Your task to perform on an android device: Search for flights from Buenos aires to Seoul Image 0: 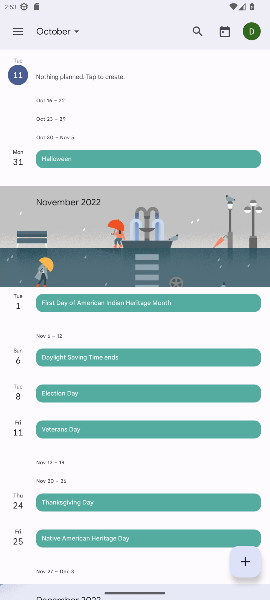
Step 0: press home button
Your task to perform on an android device: Search for flights from Buenos aires to Seoul Image 1: 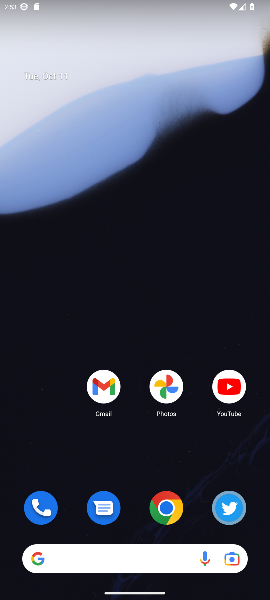
Step 1: click (165, 508)
Your task to perform on an android device: Search for flights from Buenos aires to Seoul Image 2: 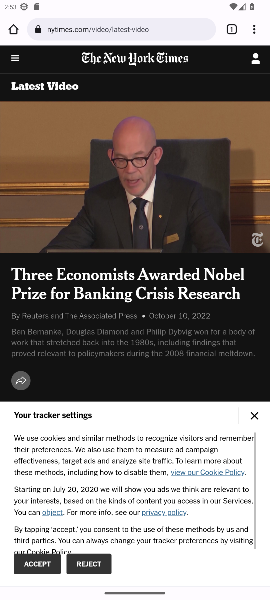
Step 2: click (255, 415)
Your task to perform on an android device: Search for flights from Buenos aires to Seoul Image 3: 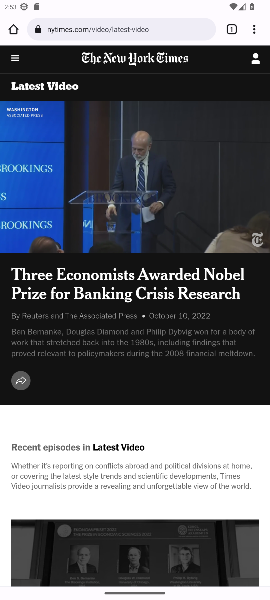
Step 3: press home button
Your task to perform on an android device: Search for flights from Buenos aires to Seoul Image 4: 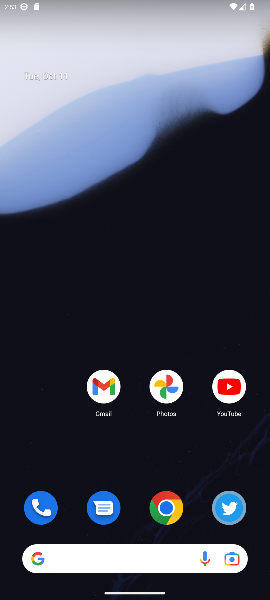
Step 4: click (168, 507)
Your task to perform on an android device: Search for flights from Buenos aires to Seoul Image 5: 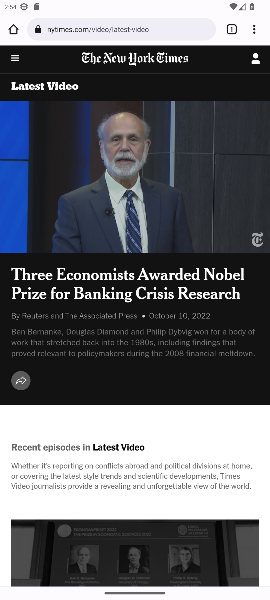
Step 5: click (112, 28)
Your task to perform on an android device: Search for flights from Buenos aires to Seoul Image 6: 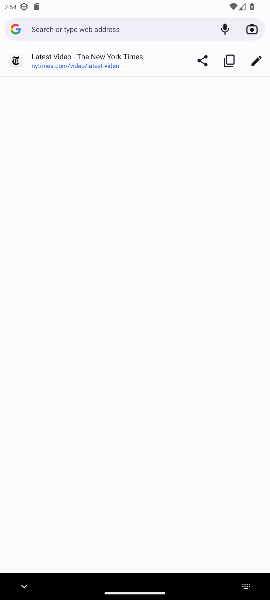
Step 6: type "flights from Buenos aires to Seoul"
Your task to perform on an android device: Search for flights from Buenos aires to Seoul Image 7: 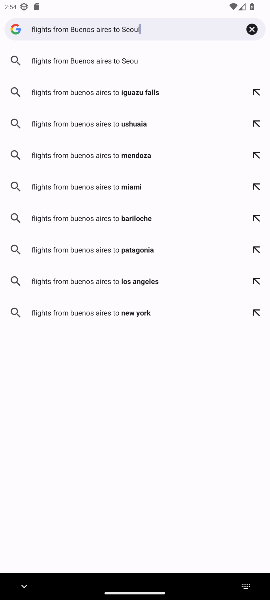
Step 7: type ""
Your task to perform on an android device: Search for flights from Buenos aires to Seoul Image 8: 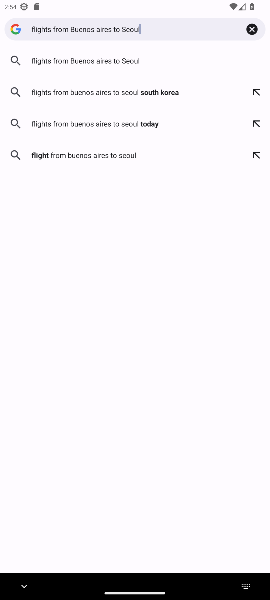
Step 8: press enter
Your task to perform on an android device: Search for flights from Buenos aires to Seoul Image 9: 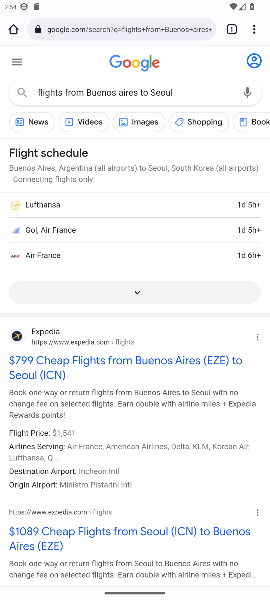
Step 9: drag from (205, 122) to (2, 118)
Your task to perform on an android device: Search for flights from Buenos aires to Seoul Image 10: 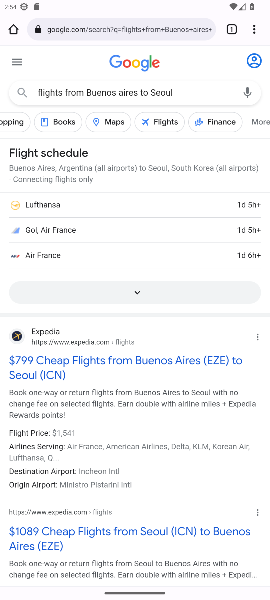
Step 10: click (163, 126)
Your task to perform on an android device: Search for flights from Buenos aires to Seoul Image 11: 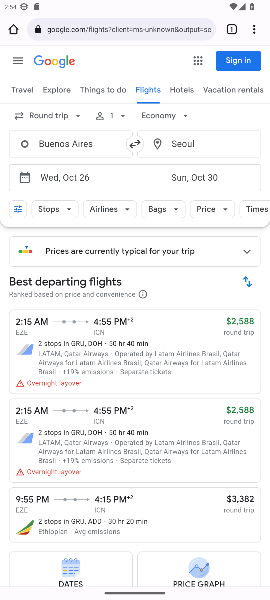
Step 11: task complete